Your task to perform on an android device: turn on wifi Image 0: 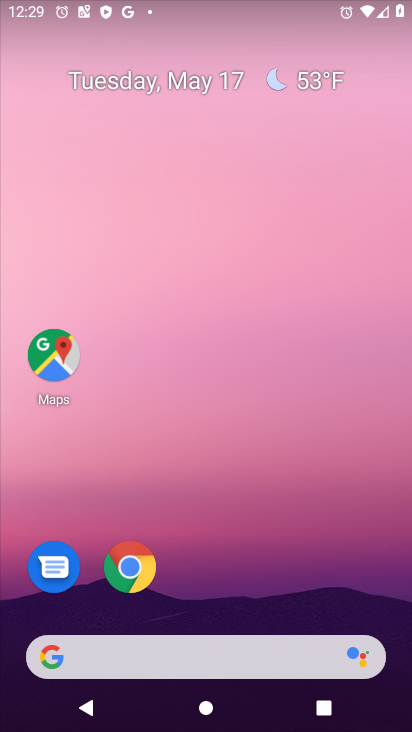
Step 0: drag from (380, 554) to (400, 424)
Your task to perform on an android device: turn on wifi Image 1: 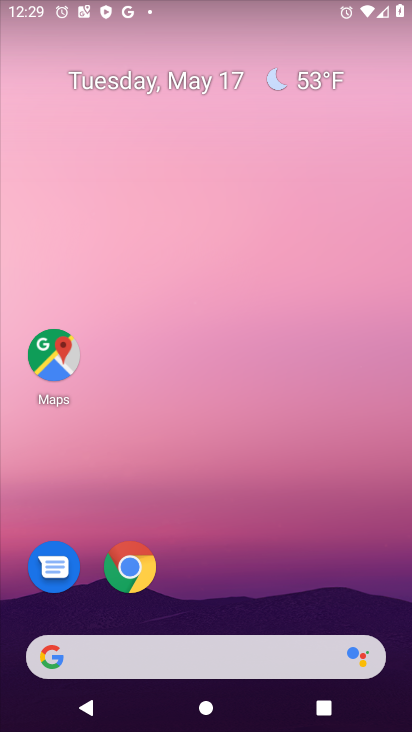
Step 1: drag from (306, 395) to (341, 128)
Your task to perform on an android device: turn on wifi Image 2: 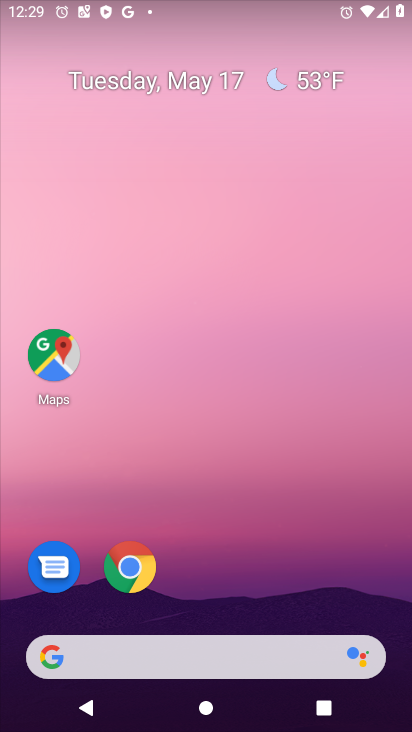
Step 2: drag from (327, 514) to (213, 14)
Your task to perform on an android device: turn on wifi Image 3: 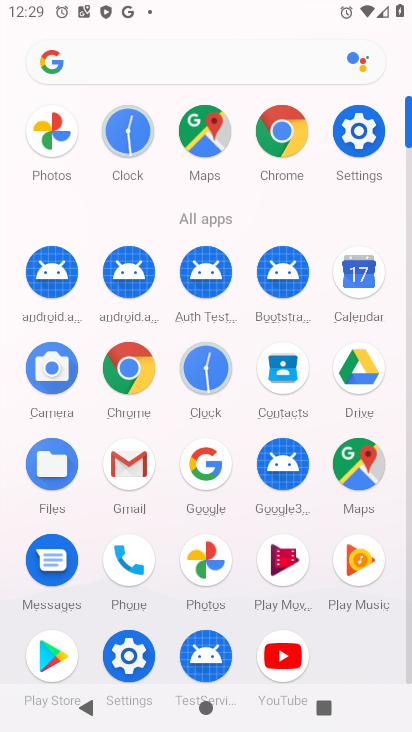
Step 3: click (367, 126)
Your task to perform on an android device: turn on wifi Image 4: 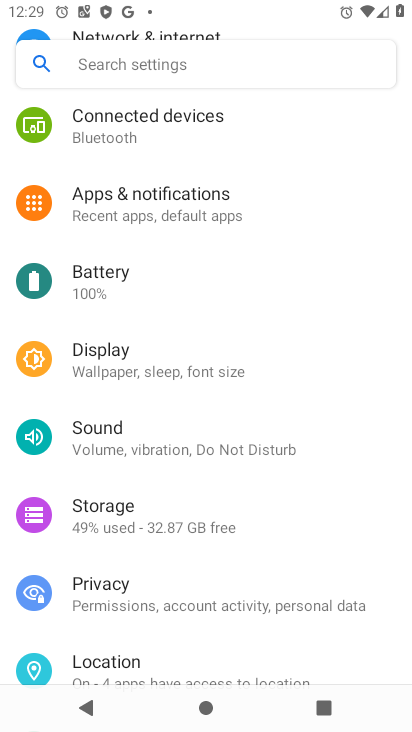
Step 4: drag from (322, 205) to (326, 357)
Your task to perform on an android device: turn on wifi Image 5: 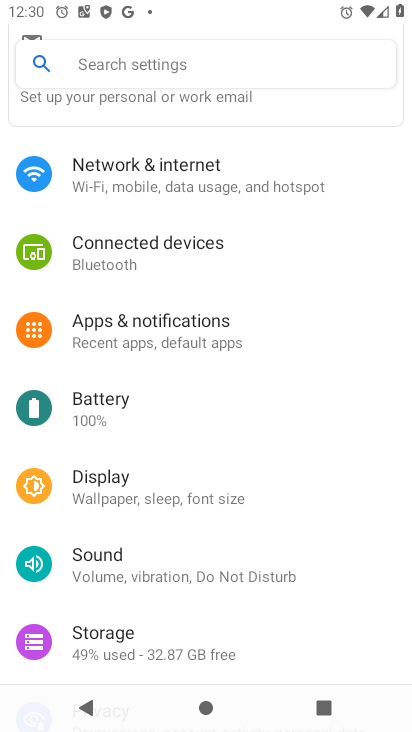
Step 5: drag from (344, 177) to (345, 322)
Your task to perform on an android device: turn on wifi Image 6: 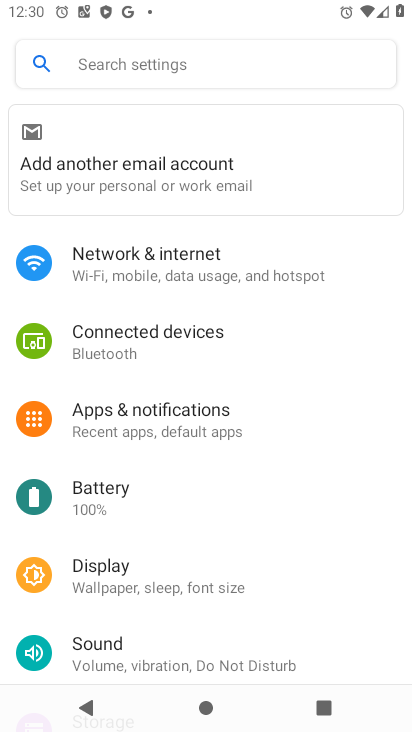
Step 6: click (243, 267)
Your task to perform on an android device: turn on wifi Image 7: 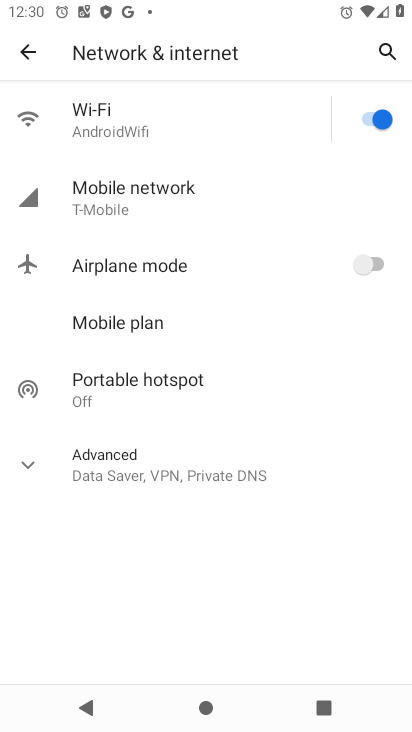
Step 7: task complete